Your task to perform on an android device: Open Wikipedia Image 0: 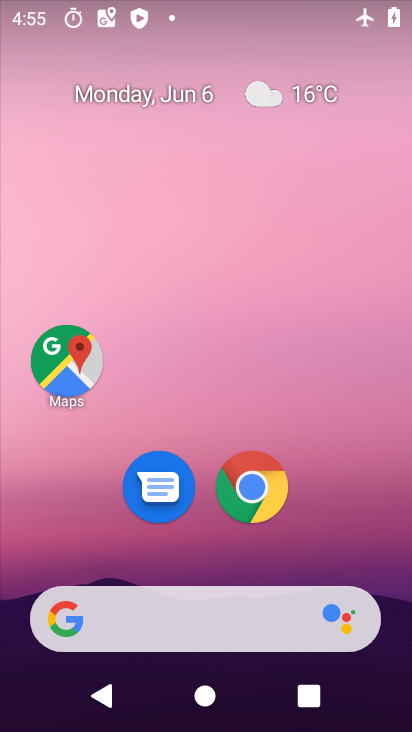
Step 0: drag from (332, 467) to (309, 134)
Your task to perform on an android device: Open Wikipedia Image 1: 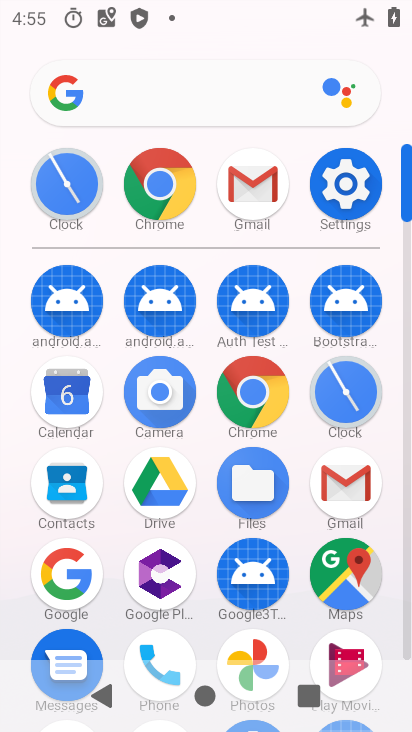
Step 1: click (231, 399)
Your task to perform on an android device: Open Wikipedia Image 2: 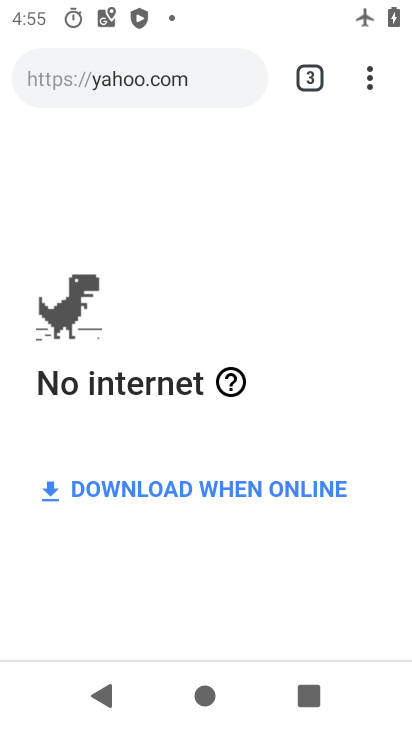
Step 2: click (216, 76)
Your task to perform on an android device: Open Wikipedia Image 3: 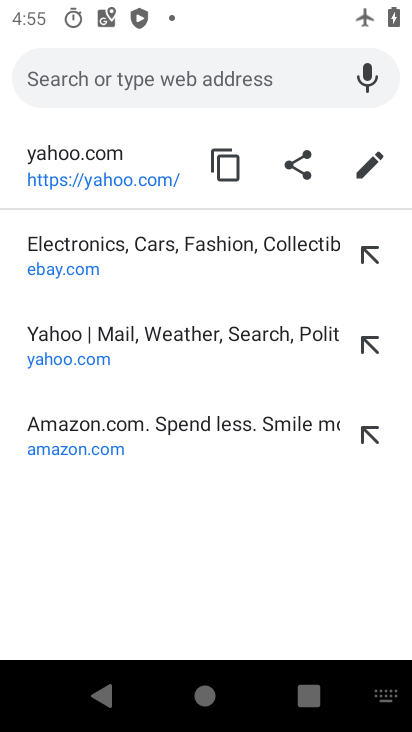
Step 3: type "wikipedia"
Your task to perform on an android device: Open Wikipedia Image 4: 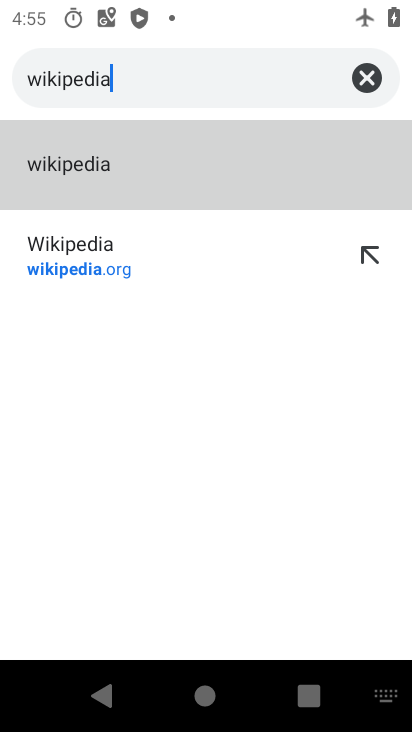
Step 4: click (64, 266)
Your task to perform on an android device: Open Wikipedia Image 5: 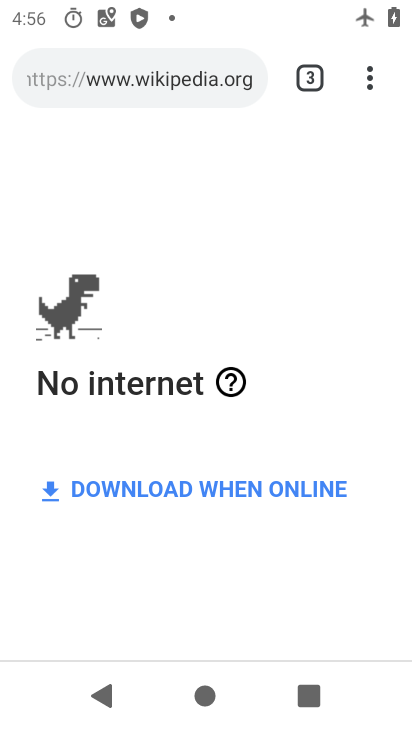
Step 5: task complete